Your task to perform on an android device: Open Youtube and go to the subscriptions tab Image 0: 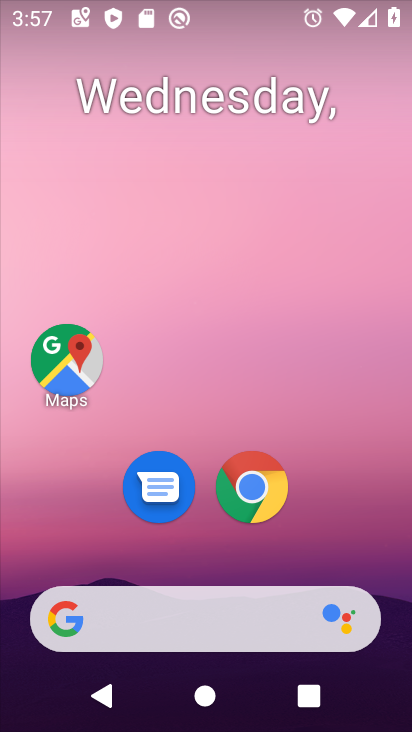
Step 0: drag from (377, 546) to (358, 91)
Your task to perform on an android device: Open Youtube and go to the subscriptions tab Image 1: 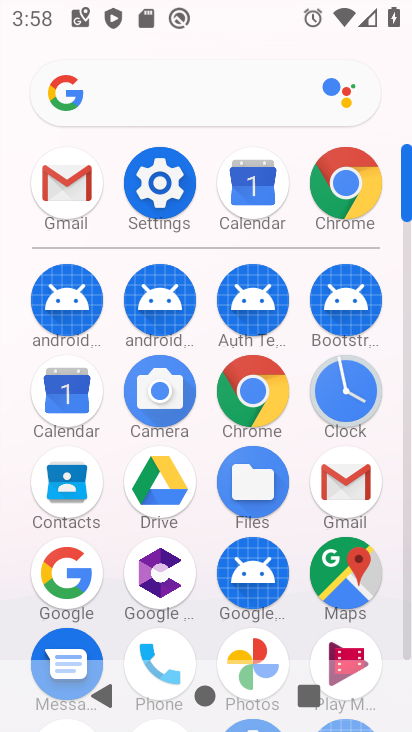
Step 1: drag from (294, 534) to (308, 241)
Your task to perform on an android device: Open Youtube and go to the subscriptions tab Image 2: 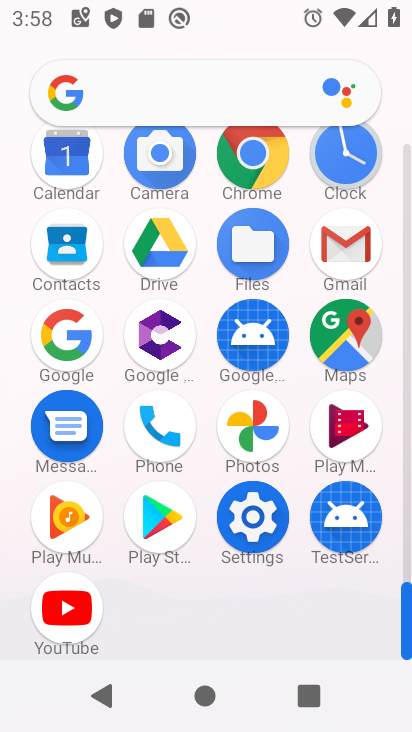
Step 2: click (70, 628)
Your task to perform on an android device: Open Youtube and go to the subscriptions tab Image 3: 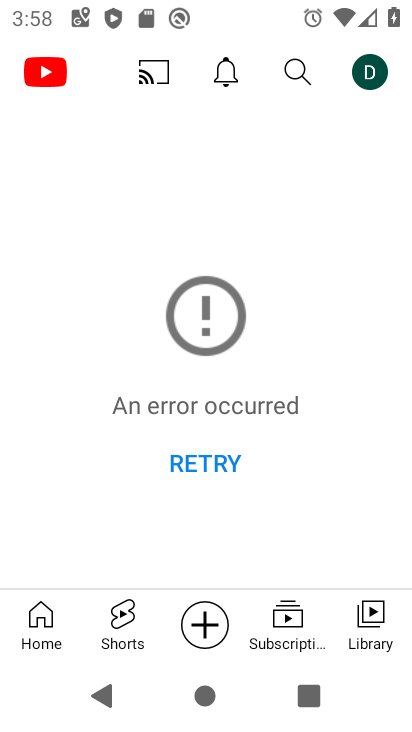
Step 3: click (291, 626)
Your task to perform on an android device: Open Youtube and go to the subscriptions tab Image 4: 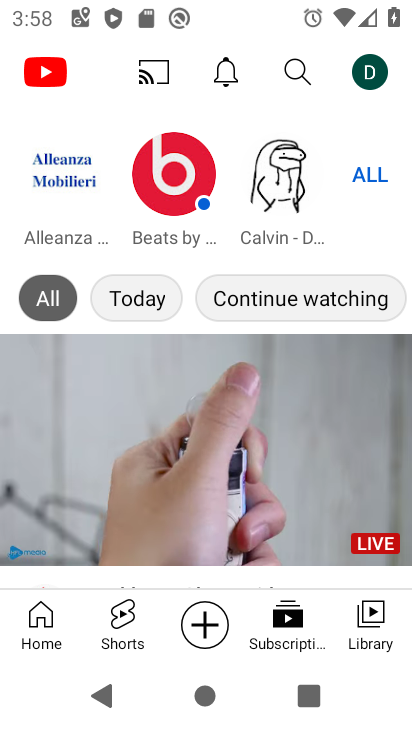
Step 4: task complete